Your task to perform on an android device: Open the Play Movies app and select the watchlist tab. Image 0: 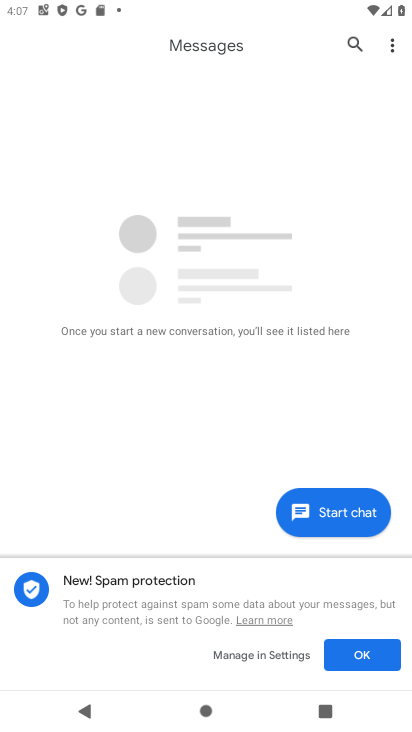
Step 0: press home button
Your task to perform on an android device: Open the Play Movies app and select the watchlist tab. Image 1: 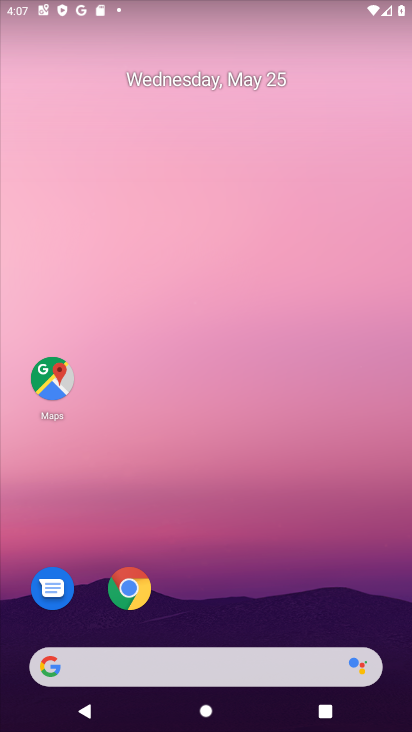
Step 1: drag from (245, 622) to (225, 187)
Your task to perform on an android device: Open the Play Movies app and select the watchlist tab. Image 2: 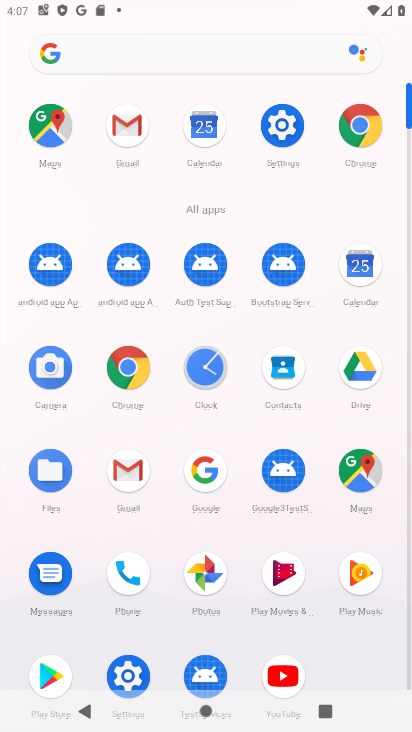
Step 2: click (288, 575)
Your task to perform on an android device: Open the Play Movies app and select the watchlist tab. Image 3: 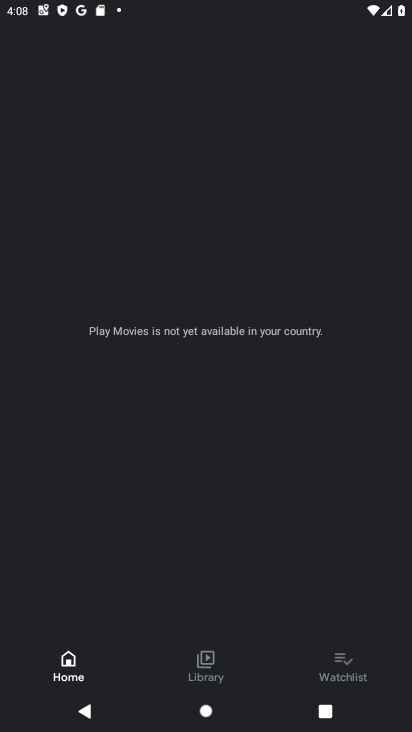
Step 3: click (331, 648)
Your task to perform on an android device: Open the Play Movies app and select the watchlist tab. Image 4: 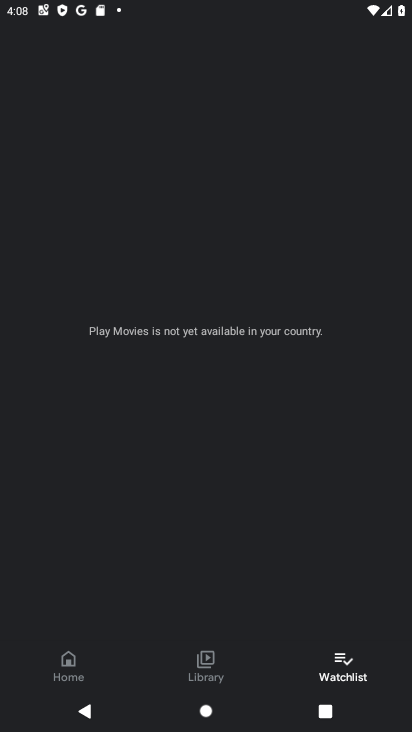
Step 4: task complete